Your task to perform on an android device: star an email in the gmail app Image 0: 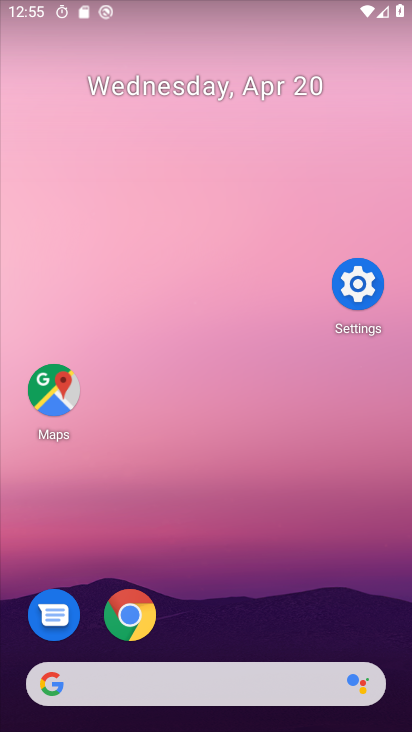
Step 0: drag from (177, 638) to (357, 51)
Your task to perform on an android device: star an email in the gmail app Image 1: 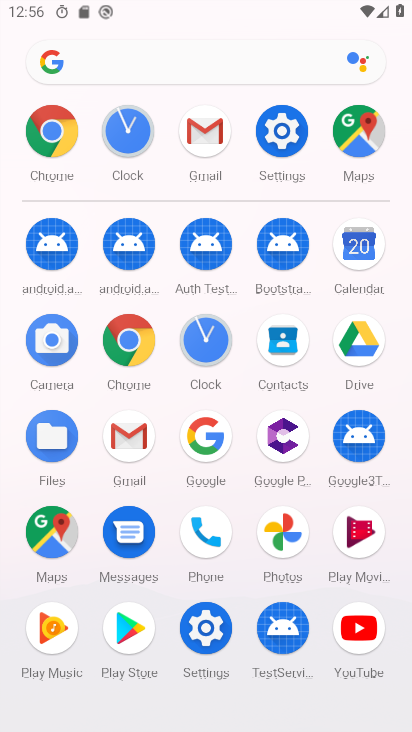
Step 1: click (130, 419)
Your task to perform on an android device: star an email in the gmail app Image 2: 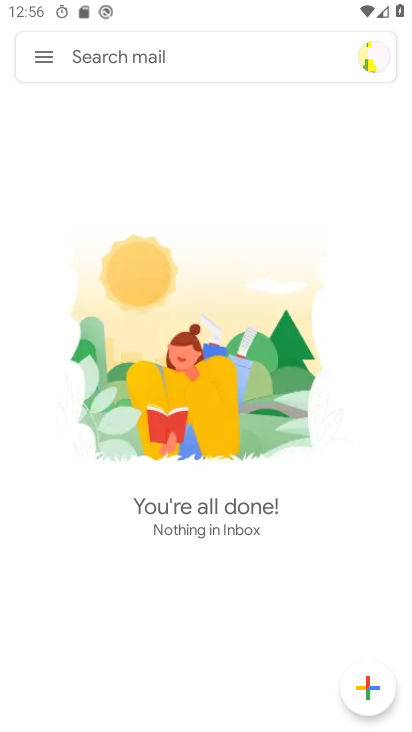
Step 2: click (43, 51)
Your task to perform on an android device: star an email in the gmail app Image 3: 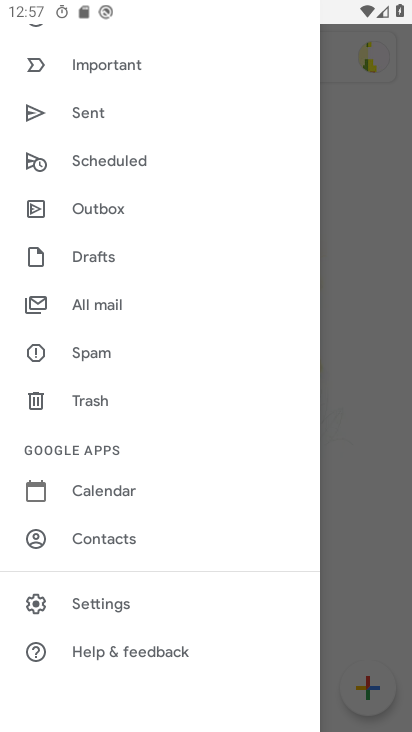
Step 3: drag from (157, 201) to (143, 650)
Your task to perform on an android device: star an email in the gmail app Image 4: 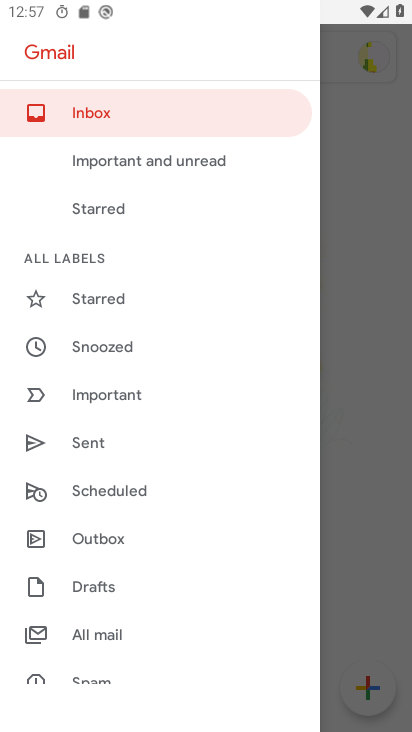
Step 4: click (120, 291)
Your task to perform on an android device: star an email in the gmail app Image 5: 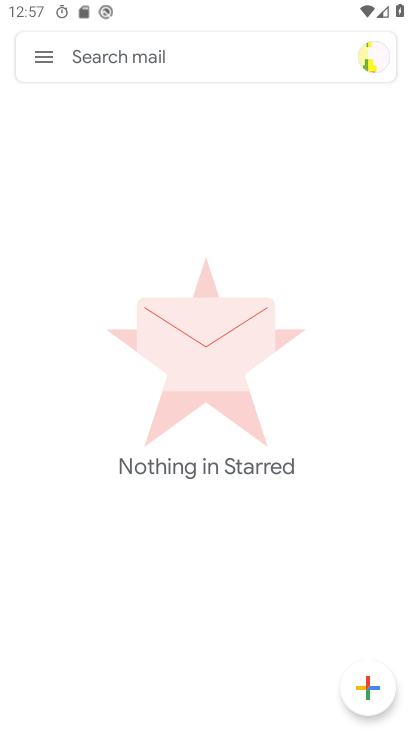
Step 5: task complete